Your task to perform on an android device: install app "DoorDash - Dasher" Image 0: 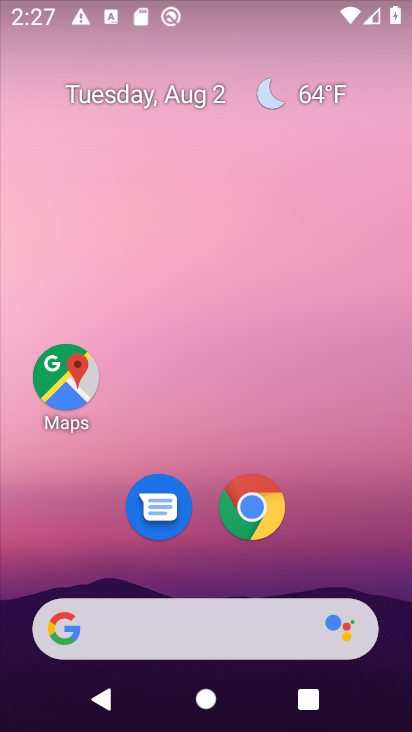
Step 0: drag from (208, 560) to (215, 182)
Your task to perform on an android device: install app "DoorDash - Dasher" Image 1: 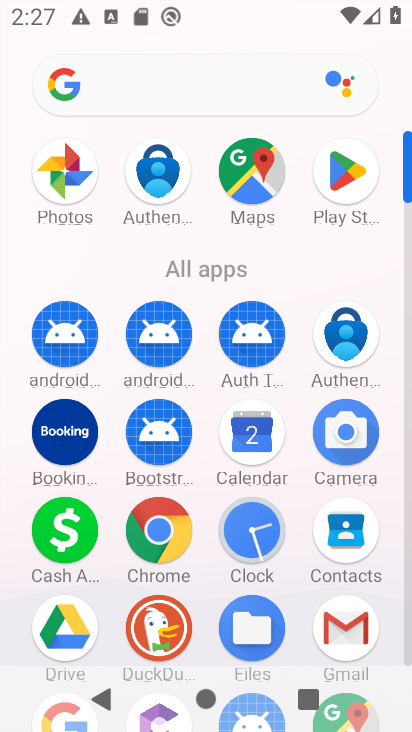
Step 1: click (351, 196)
Your task to perform on an android device: install app "DoorDash - Dasher" Image 2: 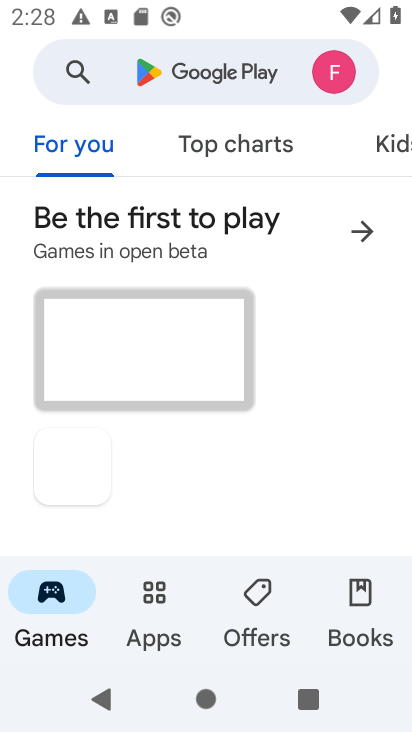
Step 2: click (171, 67)
Your task to perform on an android device: install app "DoorDash - Dasher" Image 3: 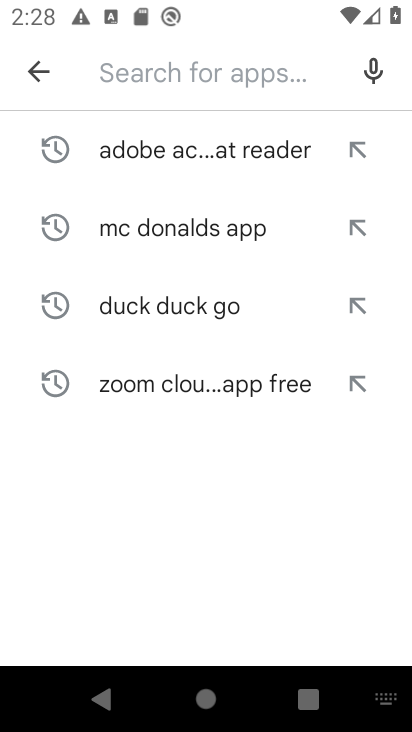
Step 3: type "DoorDash-Dasher"
Your task to perform on an android device: install app "DoorDash - Dasher" Image 4: 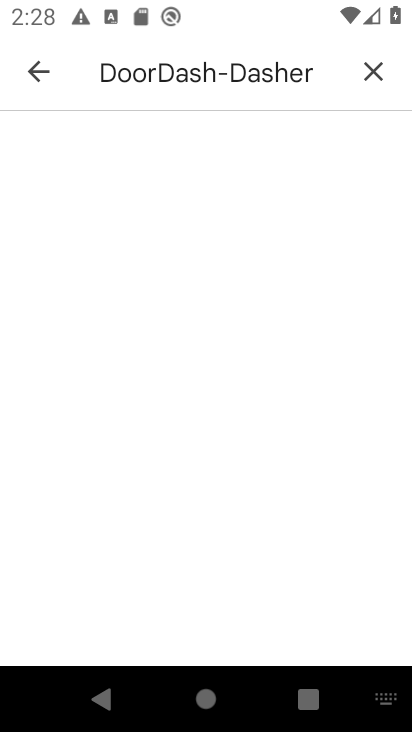
Step 4: click (205, 186)
Your task to perform on an android device: install app "DoorDash - Dasher" Image 5: 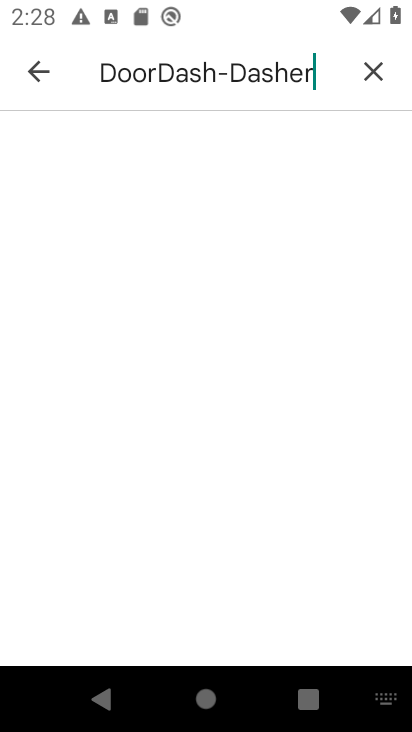
Step 5: click (180, 182)
Your task to perform on an android device: install app "DoorDash - Dasher" Image 6: 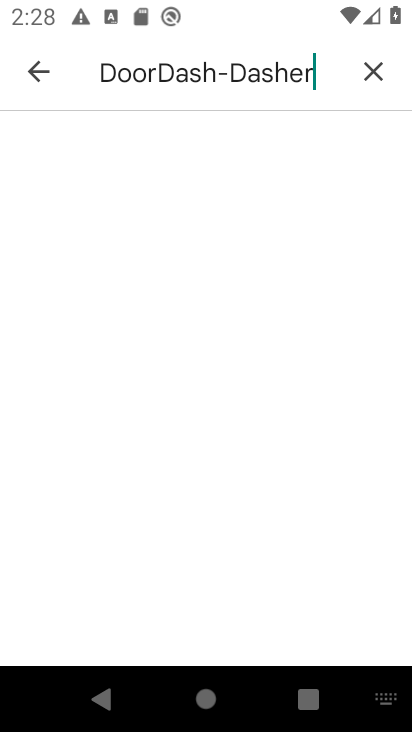
Step 6: click (189, 180)
Your task to perform on an android device: install app "DoorDash - Dasher" Image 7: 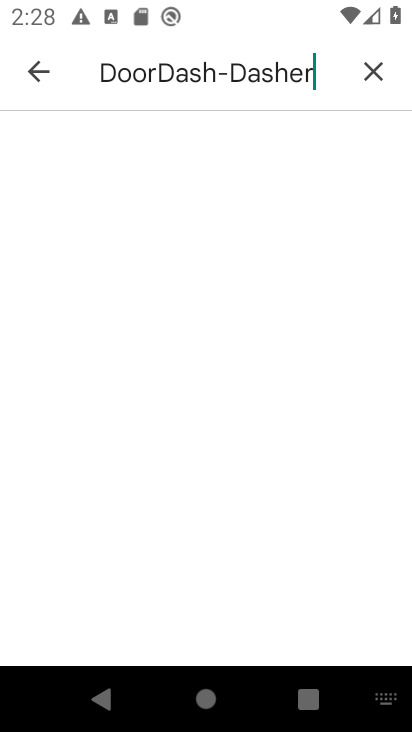
Step 7: click (190, 179)
Your task to perform on an android device: install app "DoorDash - Dasher" Image 8: 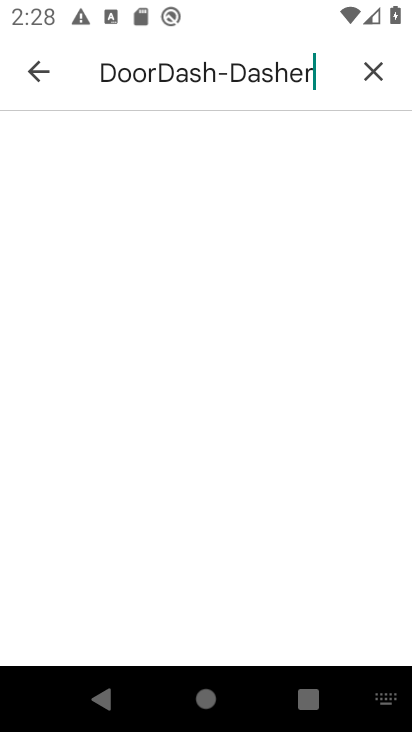
Step 8: click (190, 177)
Your task to perform on an android device: install app "DoorDash - Dasher" Image 9: 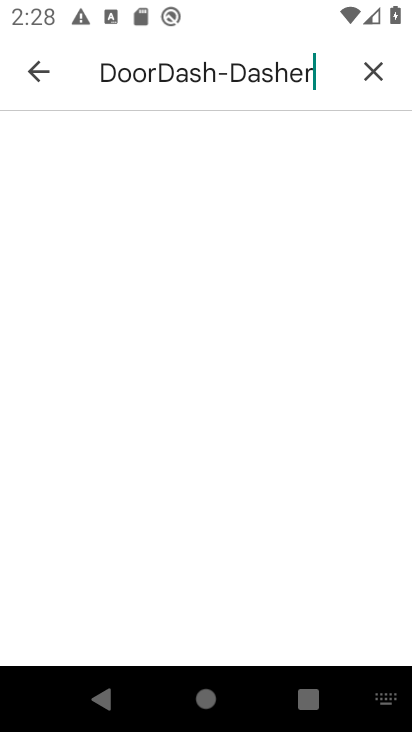
Step 9: click (188, 174)
Your task to perform on an android device: install app "DoorDash - Dasher" Image 10: 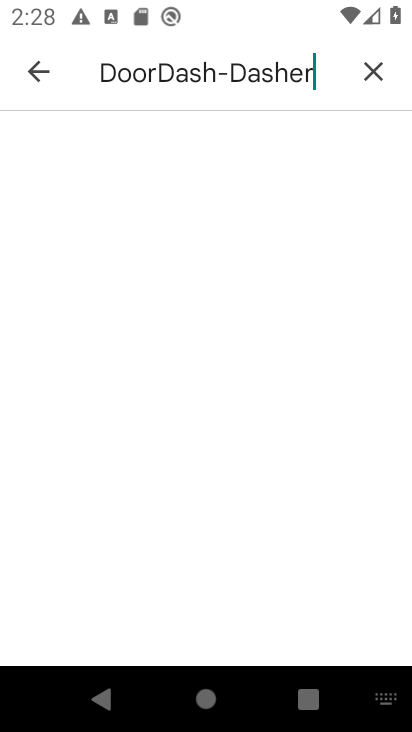
Step 10: click (34, 73)
Your task to perform on an android device: install app "DoorDash - Dasher" Image 11: 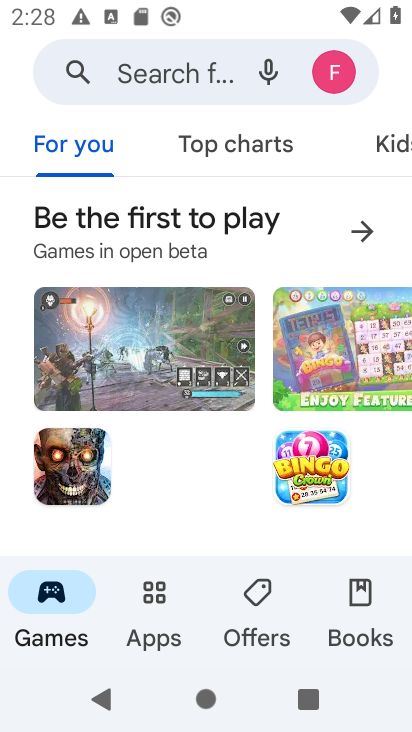
Step 11: click (167, 81)
Your task to perform on an android device: install app "DoorDash - Dasher" Image 12: 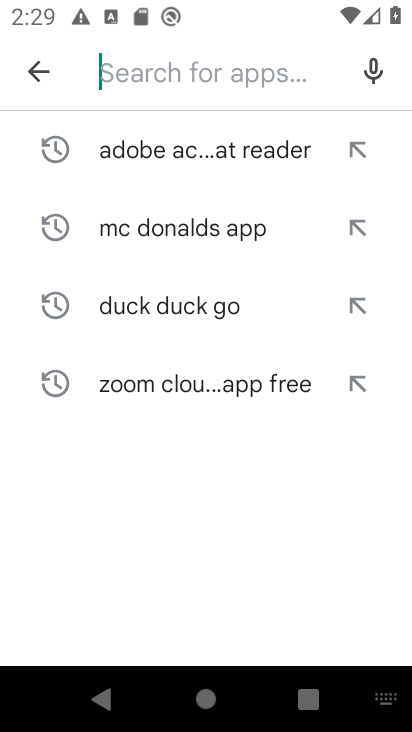
Step 12: type "doordash - dasher"
Your task to perform on an android device: install app "DoorDash - Dasher" Image 13: 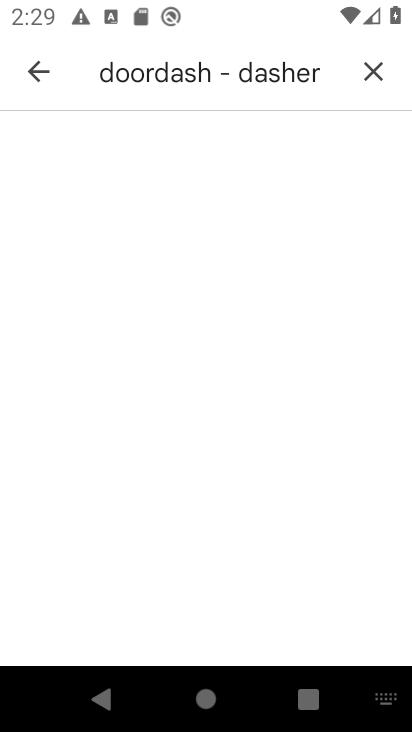
Step 13: click (149, 130)
Your task to perform on an android device: install app "DoorDash - Dasher" Image 14: 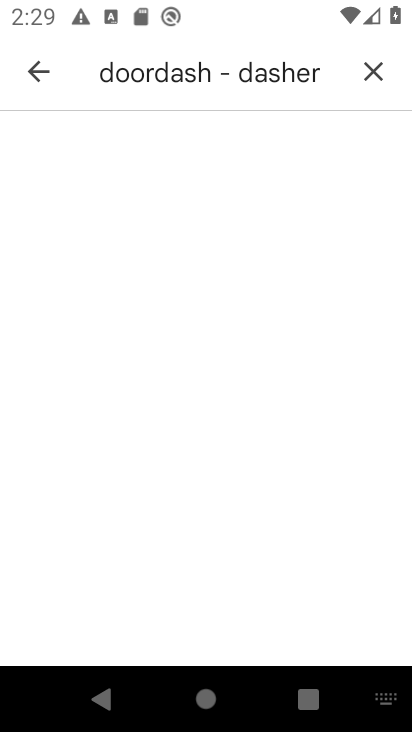
Step 14: click (162, 145)
Your task to perform on an android device: install app "DoorDash - Dasher" Image 15: 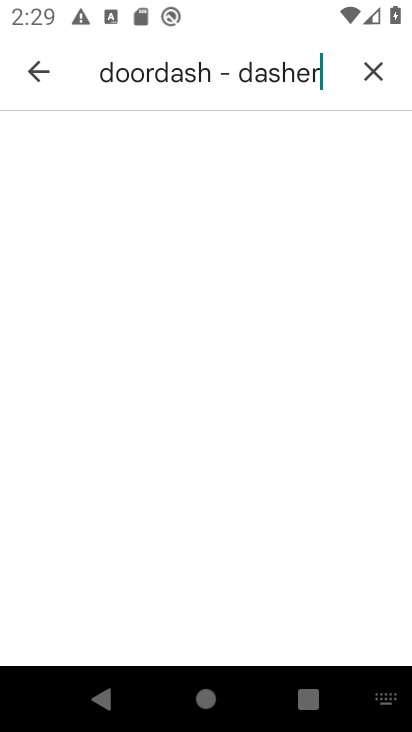
Step 15: click (176, 168)
Your task to perform on an android device: install app "DoorDash - Dasher" Image 16: 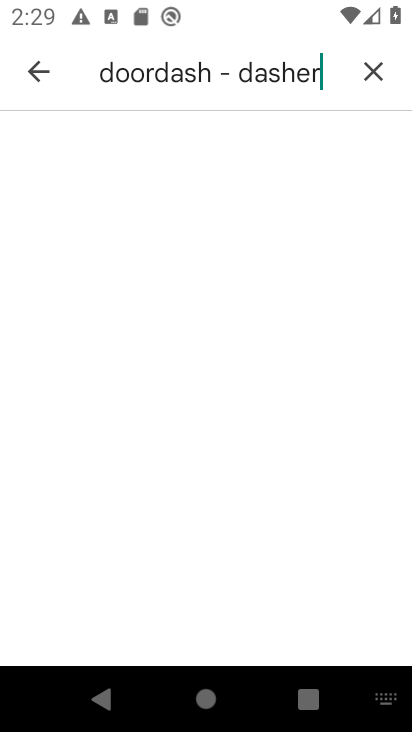
Step 16: click (175, 172)
Your task to perform on an android device: install app "DoorDash - Dasher" Image 17: 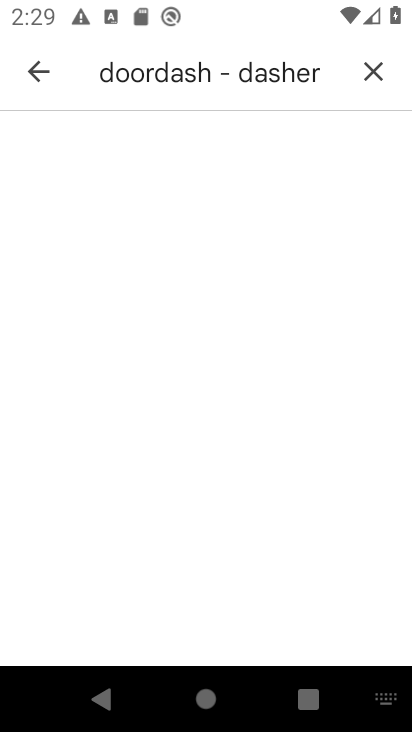
Step 17: click (173, 170)
Your task to perform on an android device: install app "DoorDash - Dasher" Image 18: 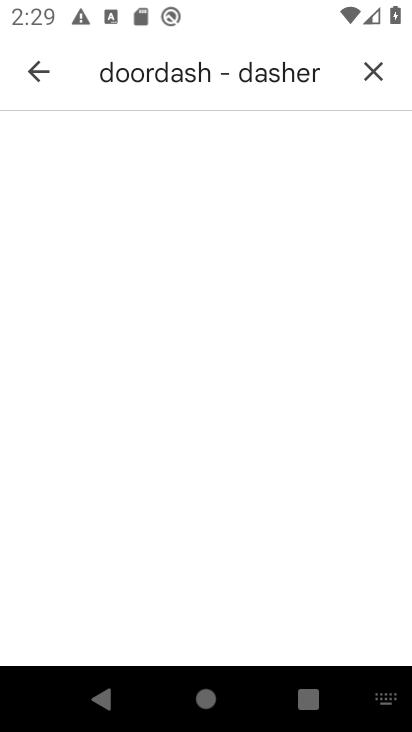
Step 18: click (173, 170)
Your task to perform on an android device: install app "DoorDash - Dasher" Image 19: 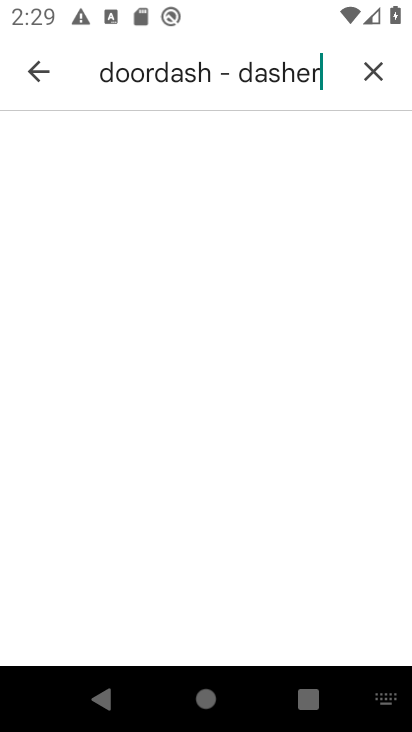
Step 19: task complete